Your task to perform on an android device: check out phone information Image 0: 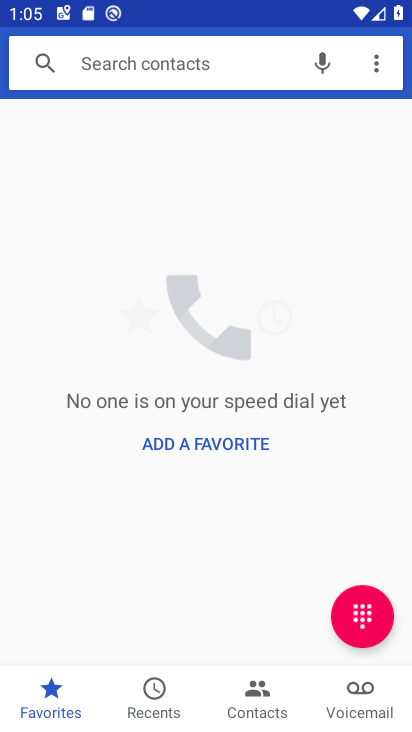
Step 0: press home button
Your task to perform on an android device: check out phone information Image 1: 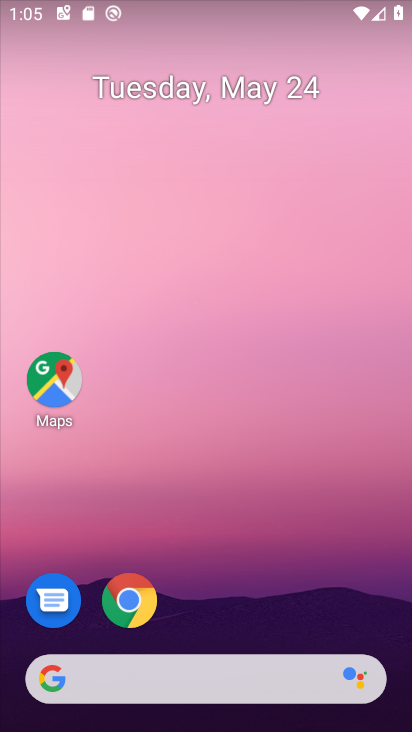
Step 1: drag from (205, 553) to (238, 320)
Your task to perform on an android device: check out phone information Image 2: 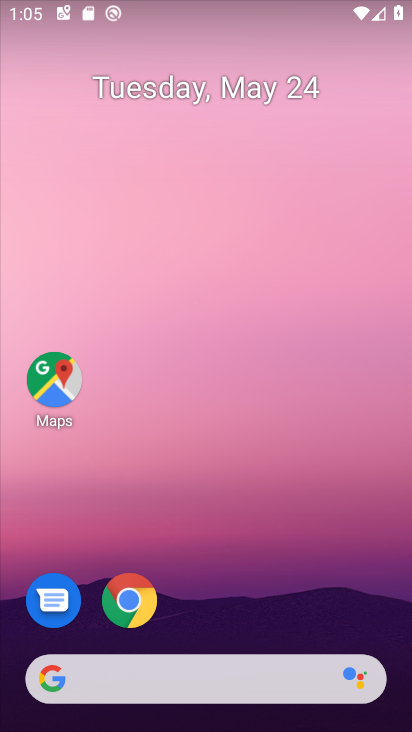
Step 2: drag from (212, 639) to (215, 198)
Your task to perform on an android device: check out phone information Image 3: 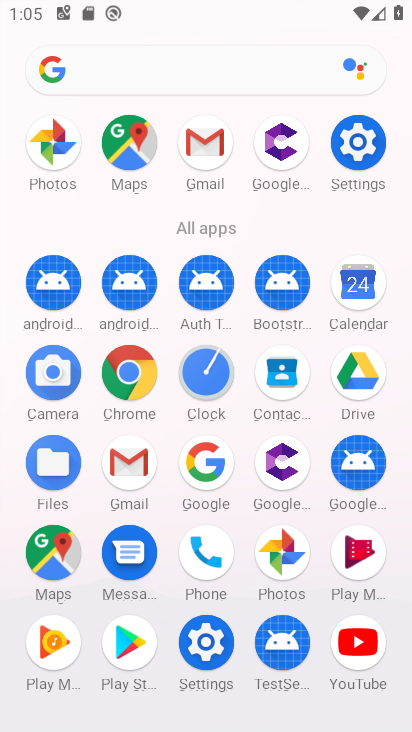
Step 3: click (337, 148)
Your task to perform on an android device: check out phone information Image 4: 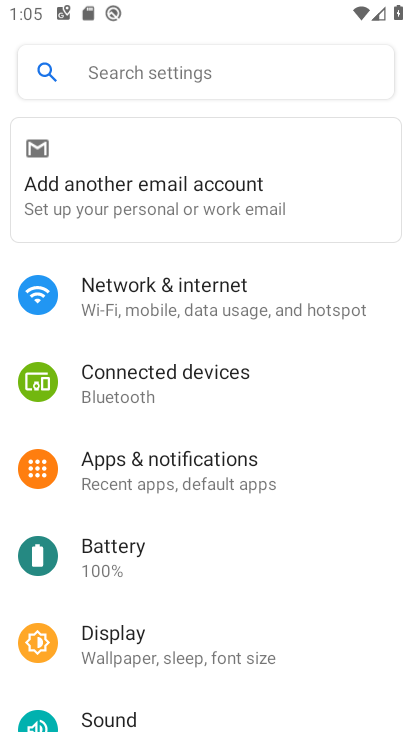
Step 4: drag from (172, 597) to (236, 342)
Your task to perform on an android device: check out phone information Image 5: 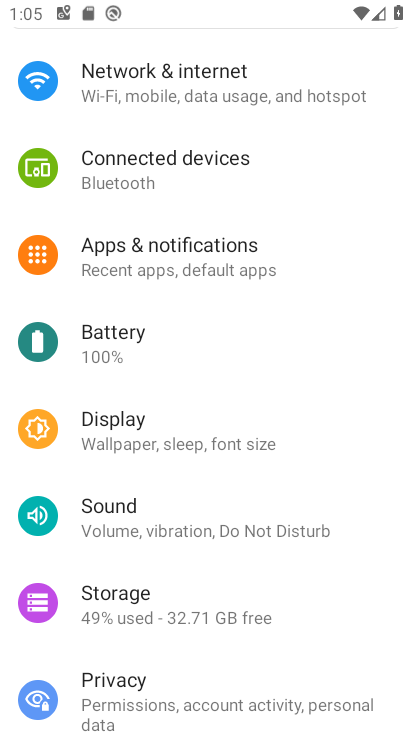
Step 5: drag from (194, 578) to (224, 253)
Your task to perform on an android device: check out phone information Image 6: 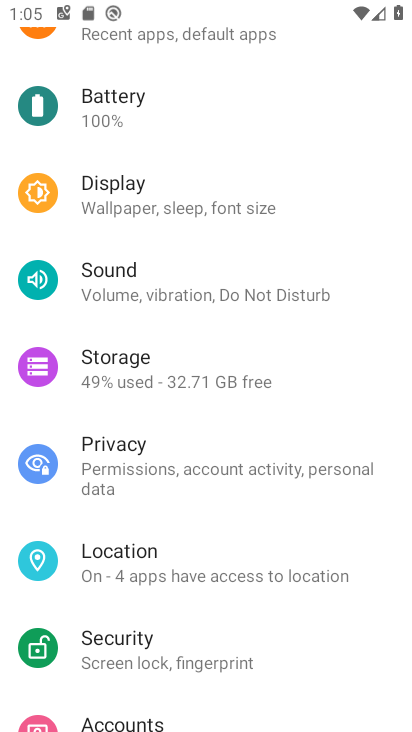
Step 6: drag from (236, 628) to (257, 238)
Your task to perform on an android device: check out phone information Image 7: 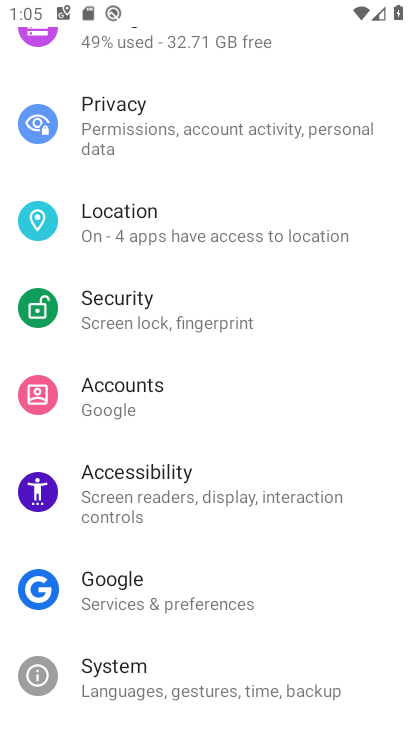
Step 7: drag from (263, 623) to (289, 375)
Your task to perform on an android device: check out phone information Image 8: 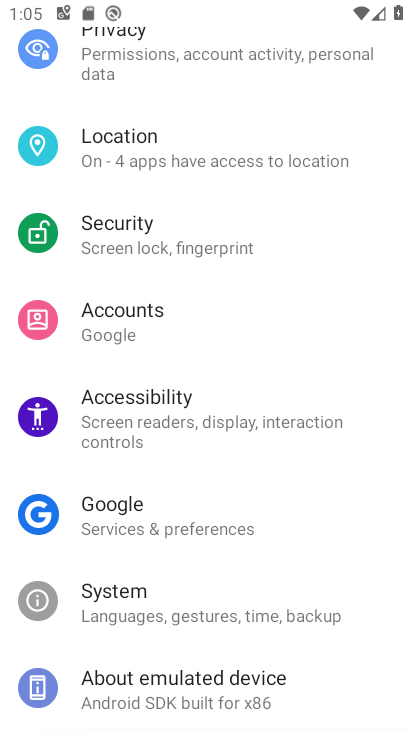
Step 8: click (264, 681)
Your task to perform on an android device: check out phone information Image 9: 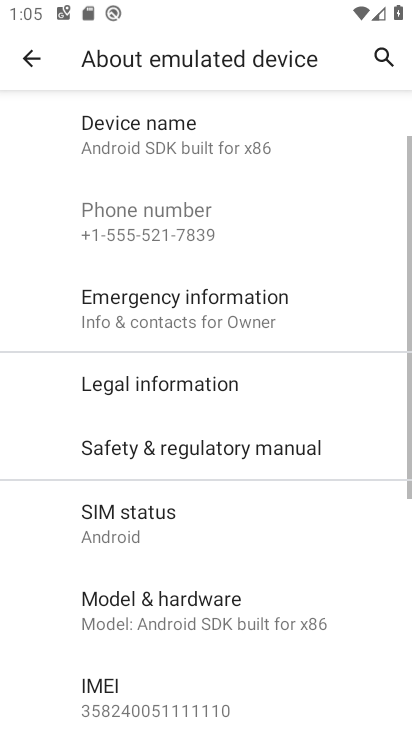
Step 9: task complete